Your task to perform on an android device: Search for Mexican restaurants on Maps Image 0: 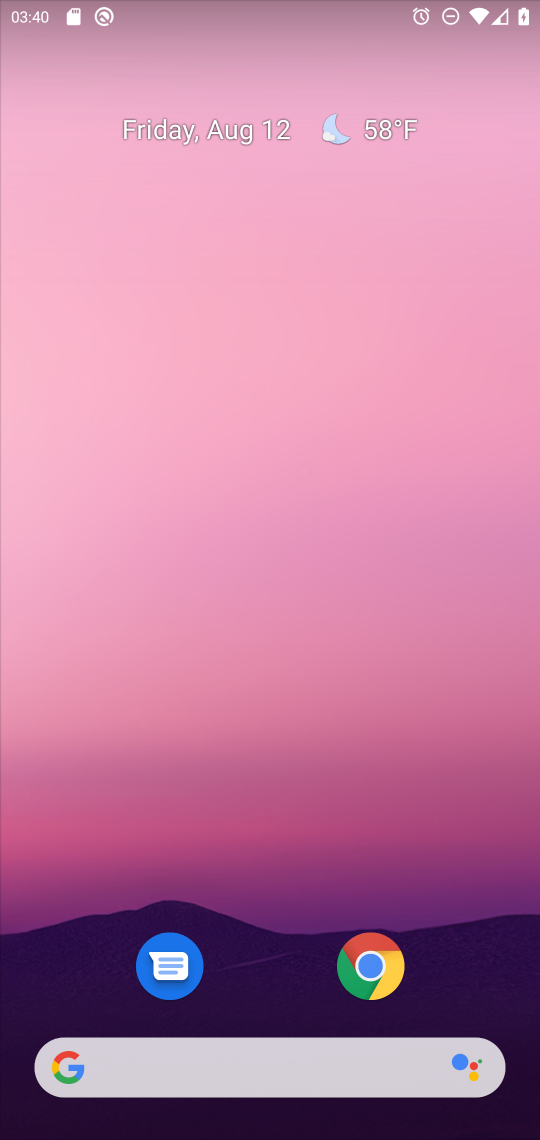
Step 0: drag from (262, 893) to (360, 42)
Your task to perform on an android device: Search for Mexican restaurants on Maps Image 1: 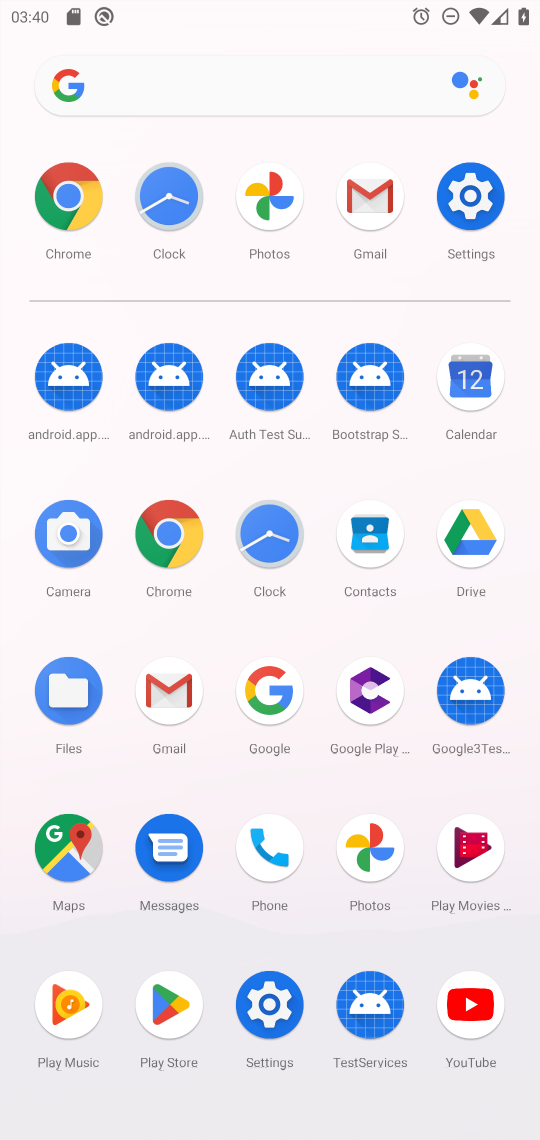
Step 1: click (65, 869)
Your task to perform on an android device: Search for Mexican restaurants on Maps Image 2: 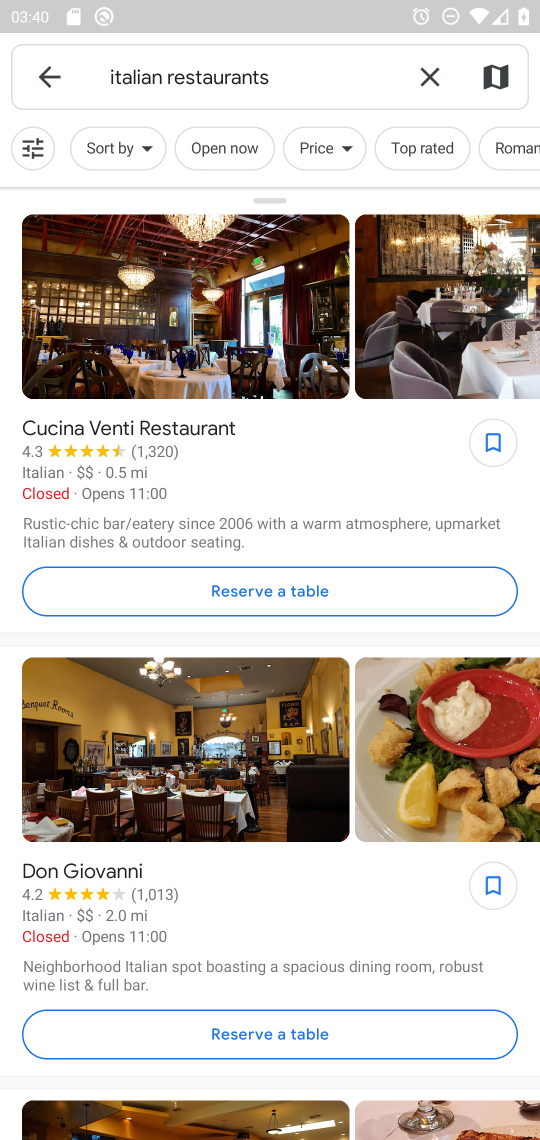
Step 2: click (425, 74)
Your task to perform on an android device: Search for Mexican restaurants on Maps Image 3: 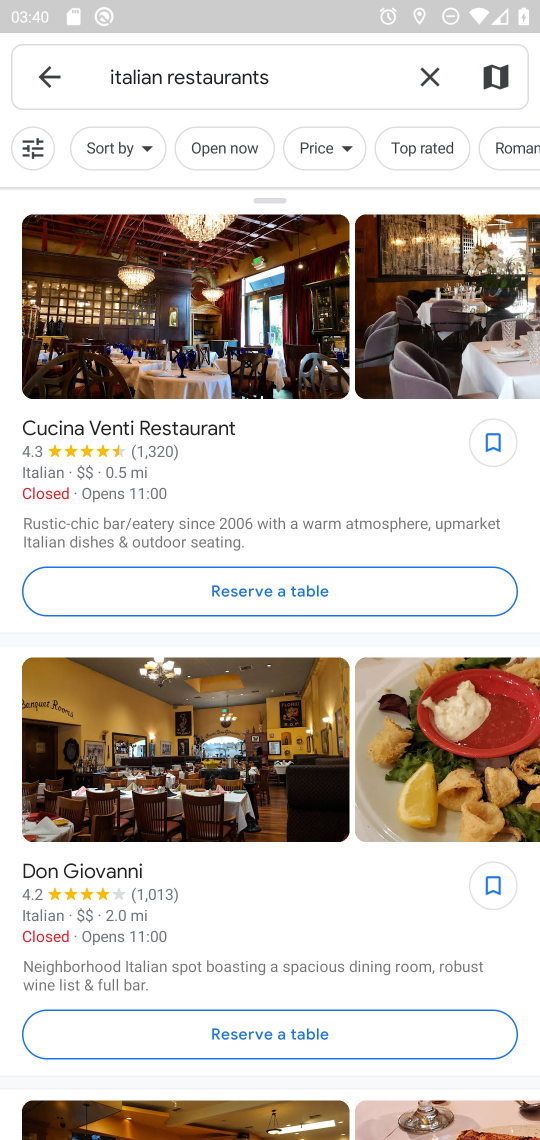
Step 3: click (433, 68)
Your task to perform on an android device: Search for Mexican restaurants on Maps Image 4: 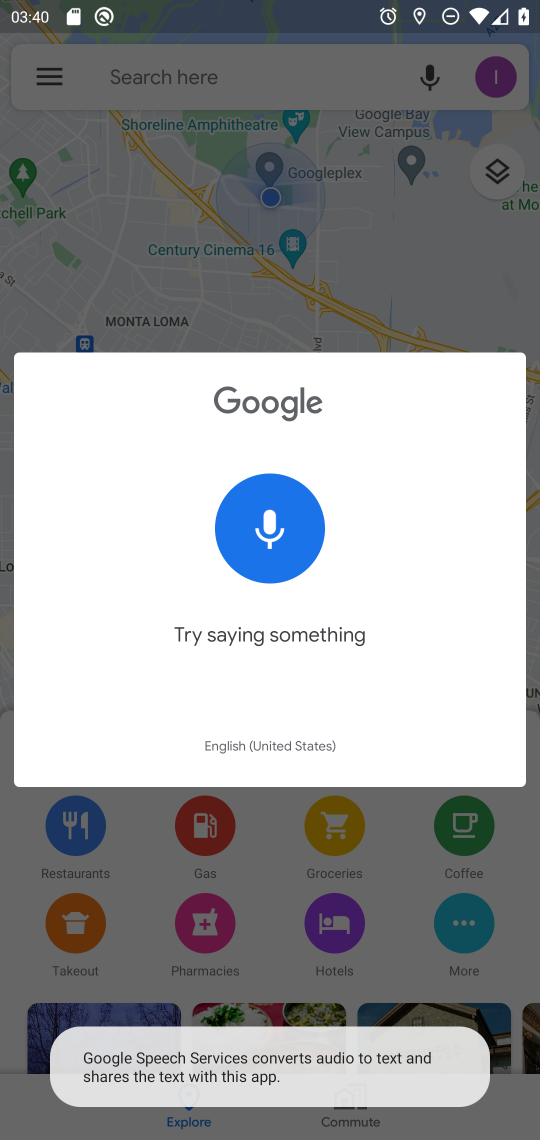
Step 4: click (280, 76)
Your task to perform on an android device: Search for Mexican restaurants on Maps Image 5: 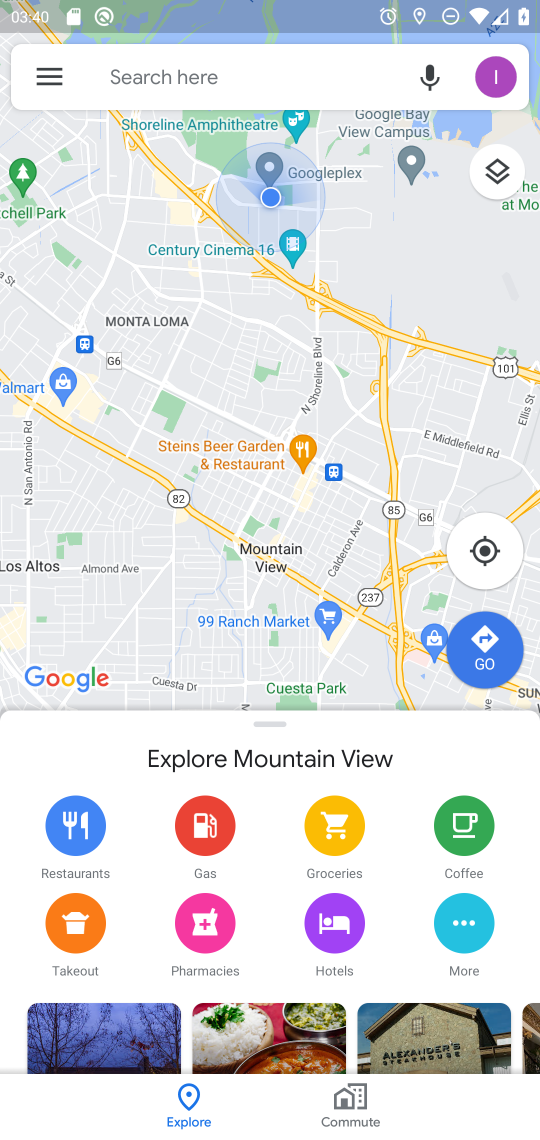
Step 5: click (268, 81)
Your task to perform on an android device: Search for Mexican restaurants on Maps Image 6: 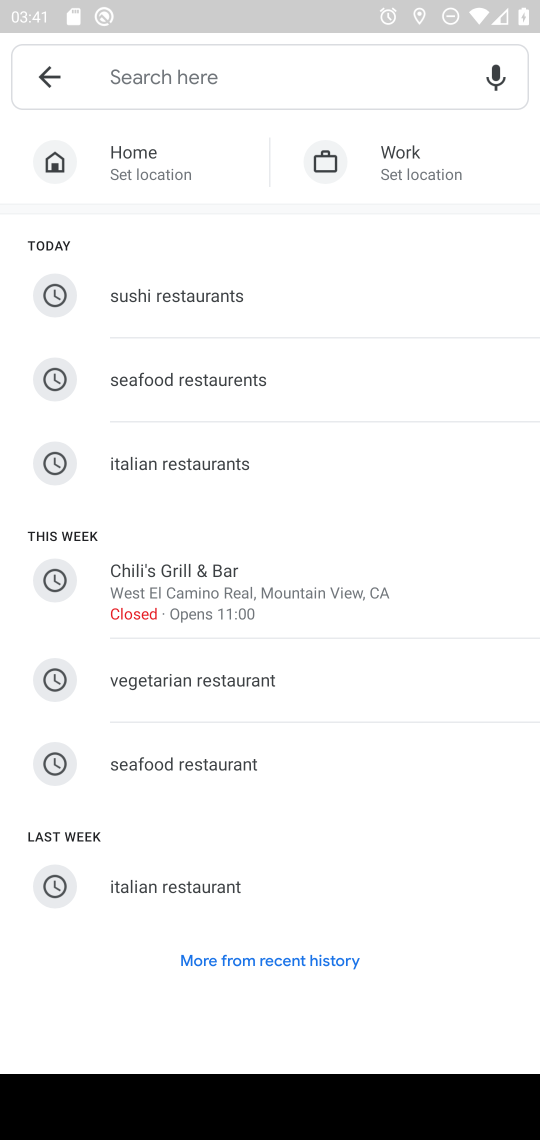
Step 6: type "Mexican restaurants"
Your task to perform on an android device: Search for Mexican restaurants on Maps Image 7: 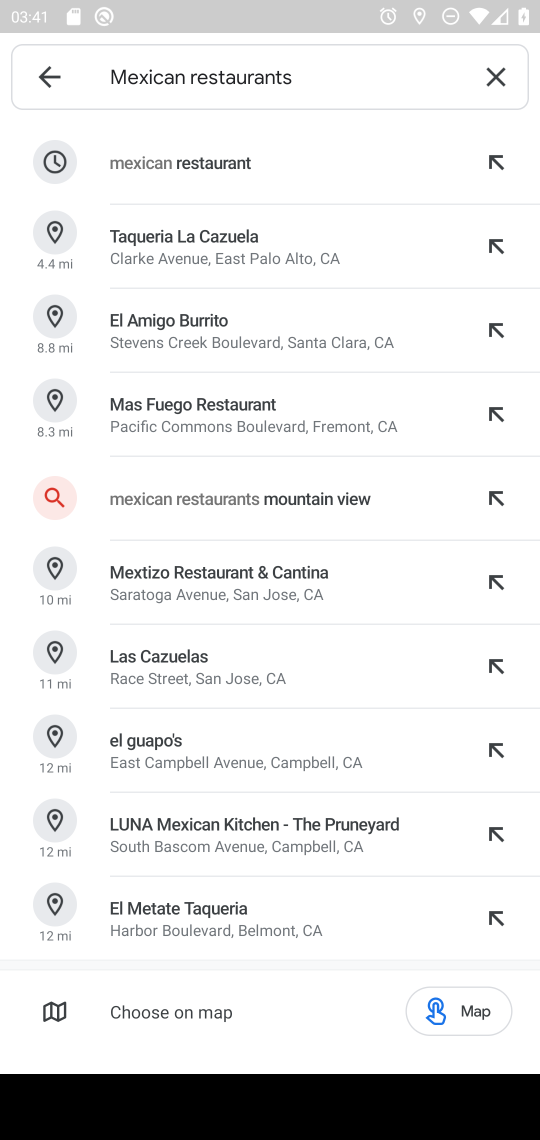
Step 7: press enter
Your task to perform on an android device: Search for Mexican restaurants on Maps Image 8: 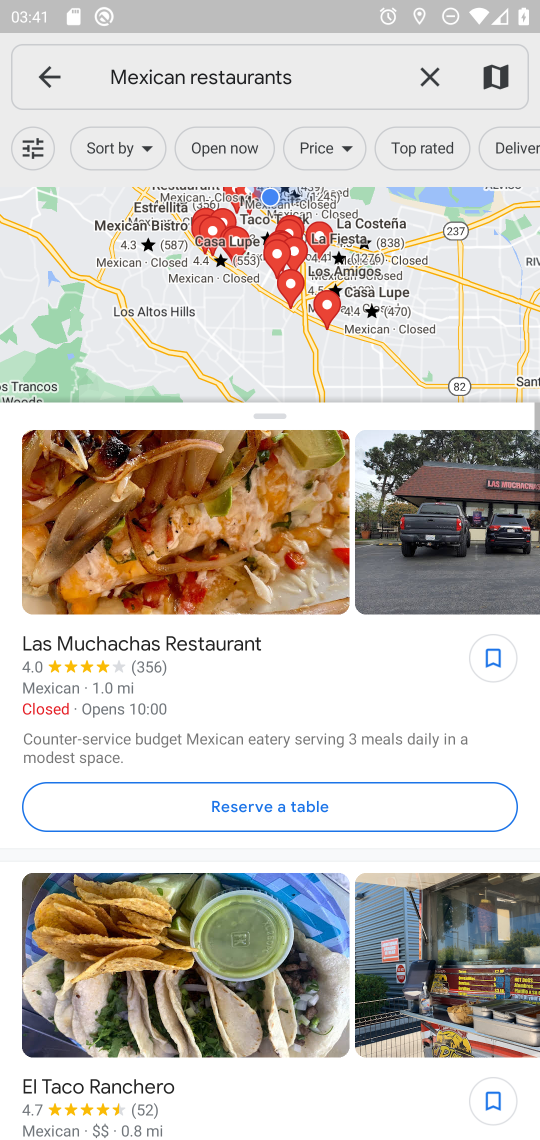
Step 8: task complete